Your task to perform on an android device: toggle location history Image 0: 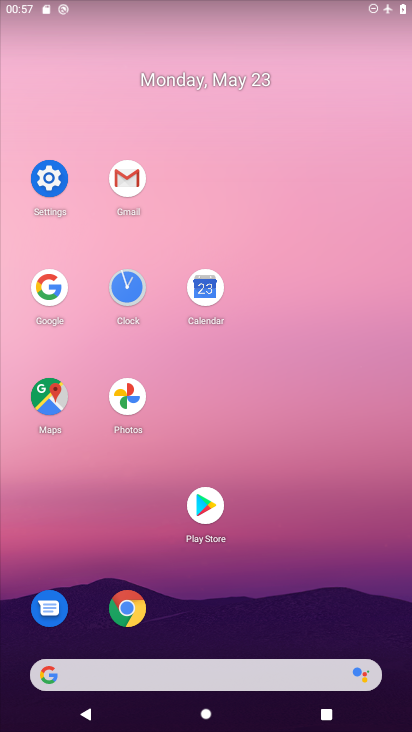
Step 0: click (66, 176)
Your task to perform on an android device: toggle location history Image 1: 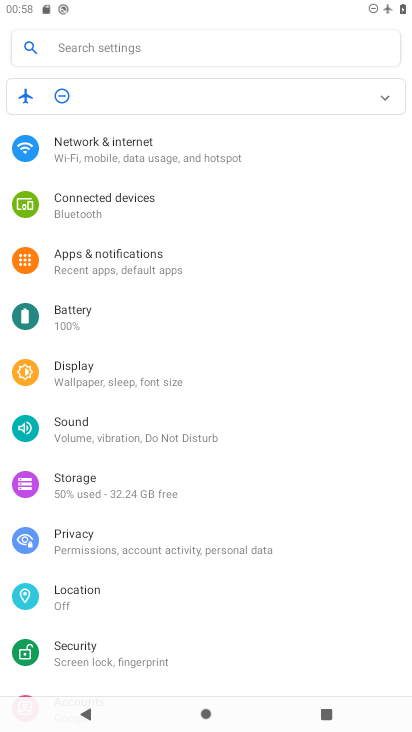
Step 1: drag from (258, 229) to (238, 481)
Your task to perform on an android device: toggle location history Image 2: 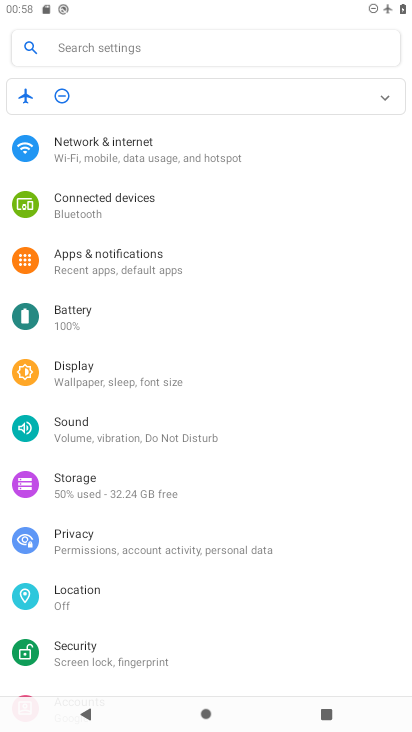
Step 2: click (79, 589)
Your task to perform on an android device: toggle location history Image 3: 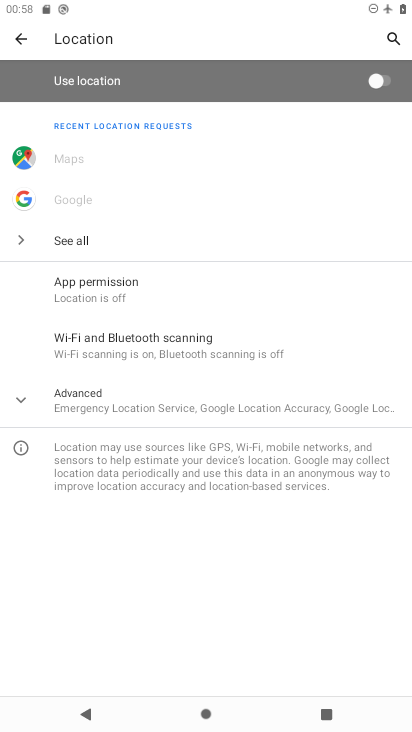
Step 3: click (166, 392)
Your task to perform on an android device: toggle location history Image 4: 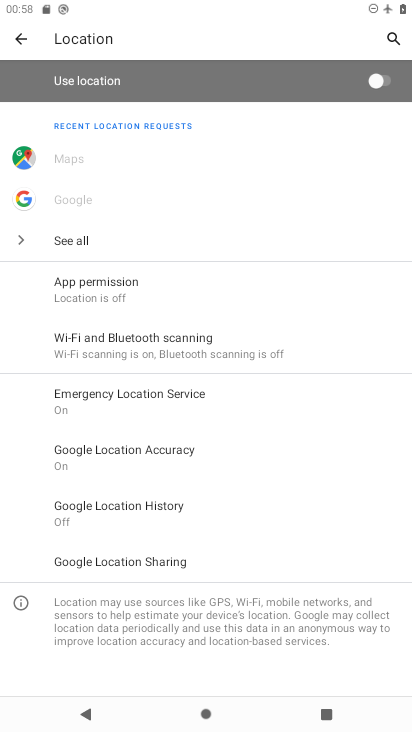
Step 4: click (147, 515)
Your task to perform on an android device: toggle location history Image 5: 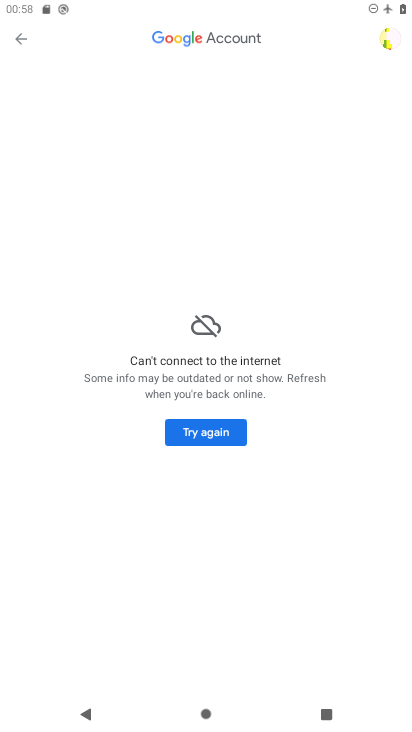
Step 5: task complete